Your task to perform on an android device: Open maps Image 0: 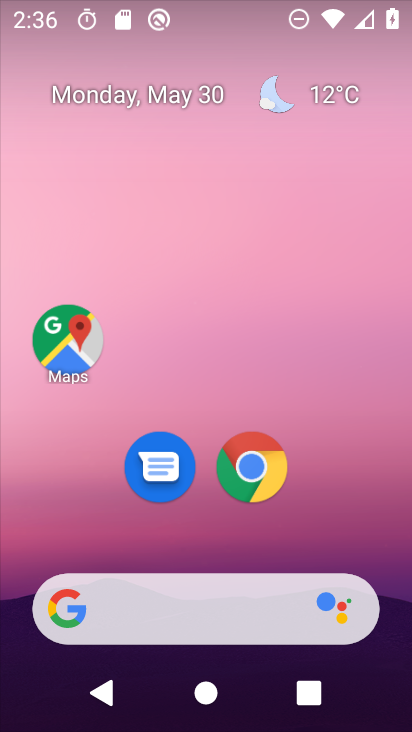
Step 0: click (66, 356)
Your task to perform on an android device: Open maps Image 1: 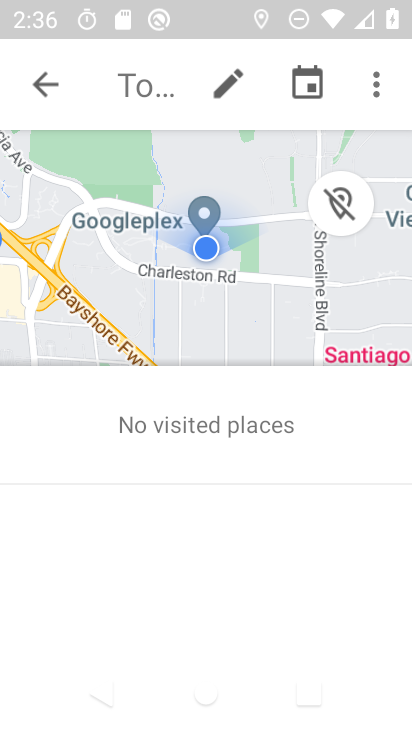
Step 1: click (42, 80)
Your task to perform on an android device: Open maps Image 2: 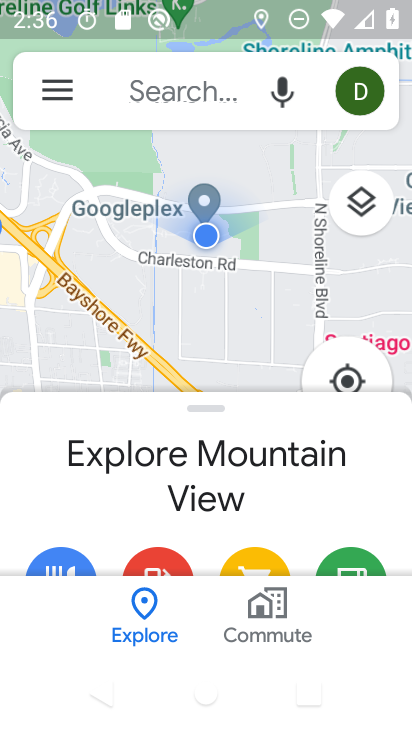
Step 2: task complete